Your task to perform on an android device: turn notification dots on Image 0: 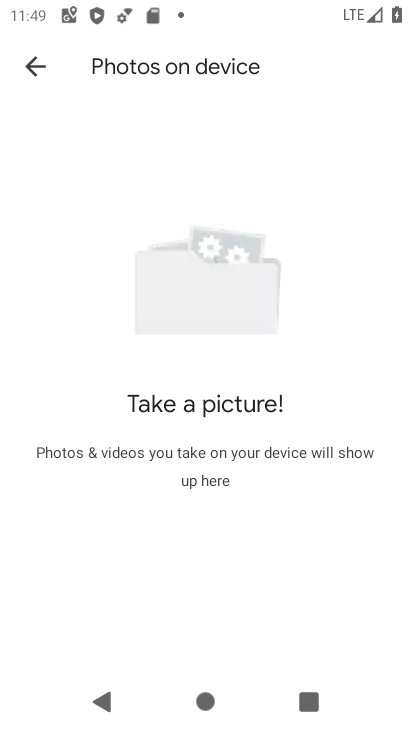
Step 0: press home button
Your task to perform on an android device: turn notification dots on Image 1: 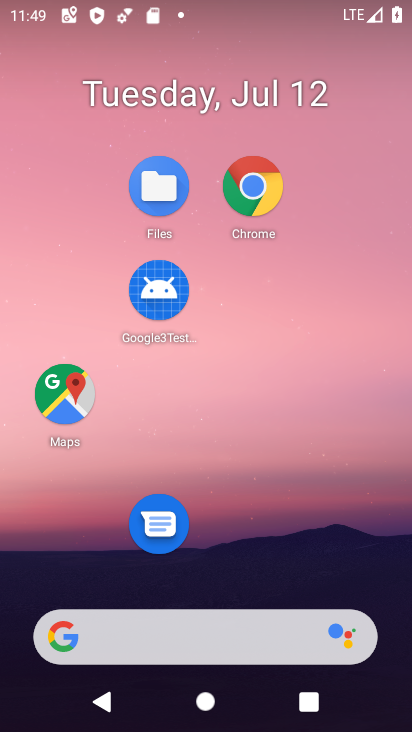
Step 1: drag from (200, 571) to (200, 116)
Your task to perform on an android device: turn notification dots on Image 2: 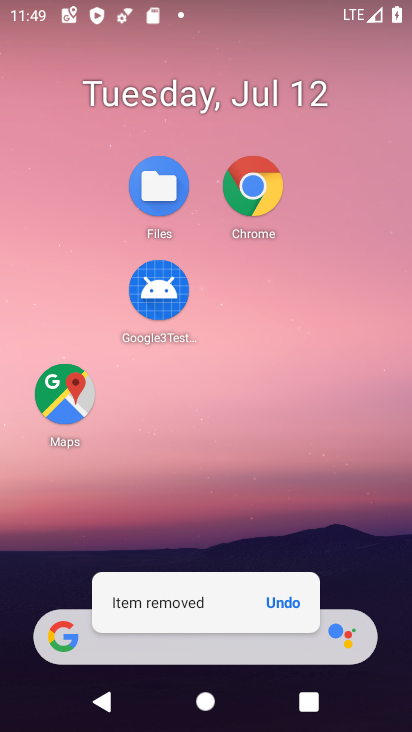
Step 2: drag from (192, 548) to (369, 65)
Your task to perform on an android device: turn notification dots on Image 3: 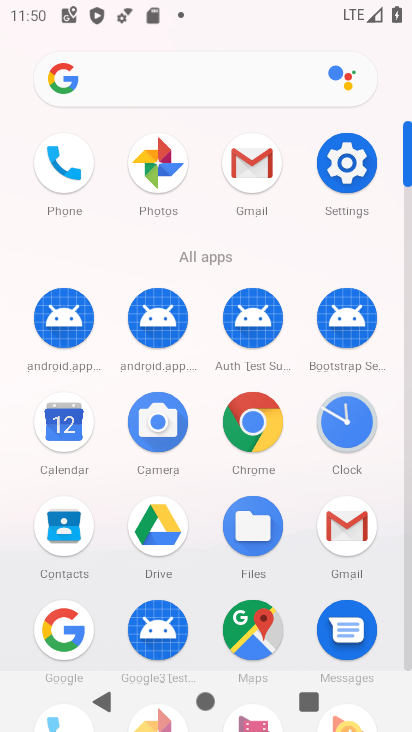
Step 3: click (344, 188)
Your task to perform on an android device: turn notification dots on Image 4: 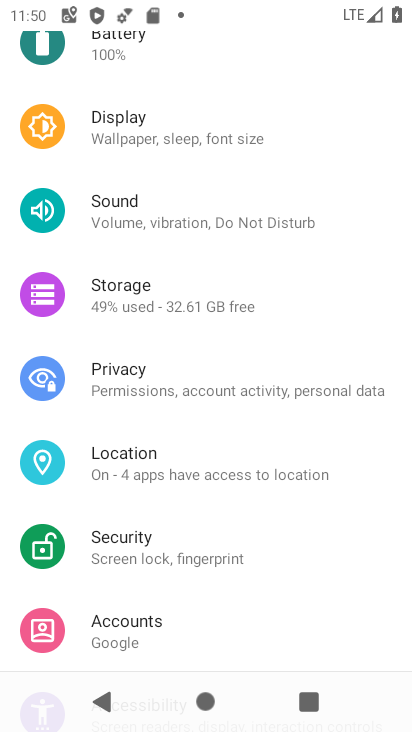
Step 4: drag from (212, 78) to (347, 550)
Your task to perform on an android device: turn notification dots on Image 5: 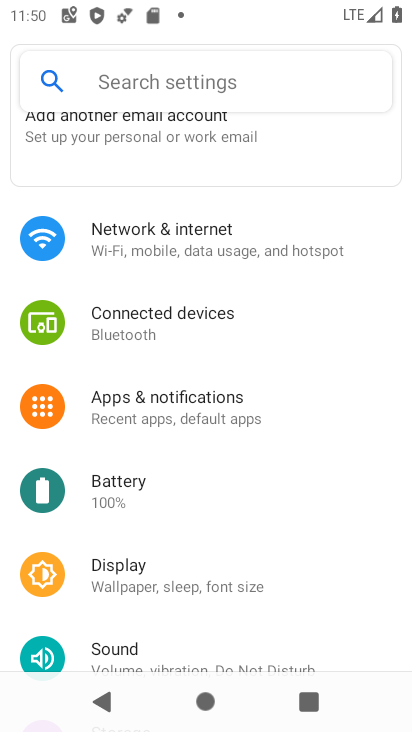
Step 5: click (183, 409)
Your task to perform on an android device: turn notification dots on Image 6: 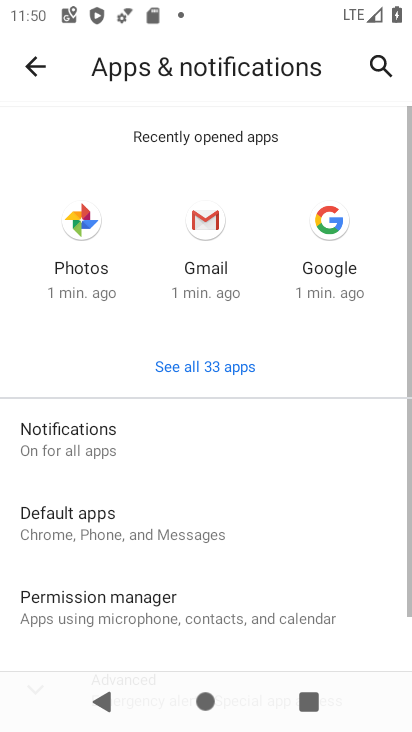
Step 6: click (129, 432)
Your task to perform on an android device: turn notification dots on Image 7: 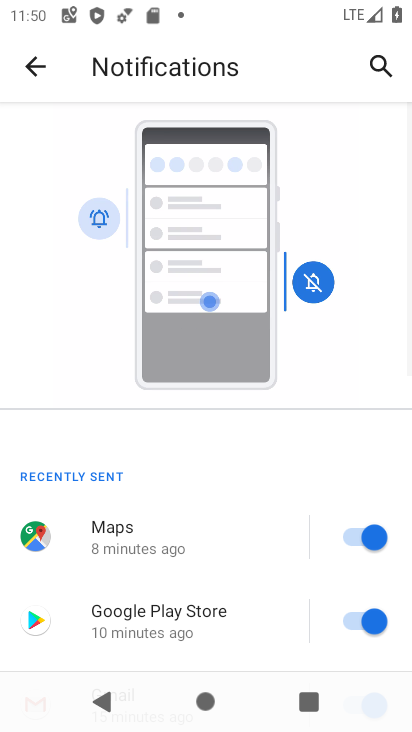
Step 7: drag from (149, 565) to (46, 82)
Your task to perform on an android device: turn notification dots on Image 8: 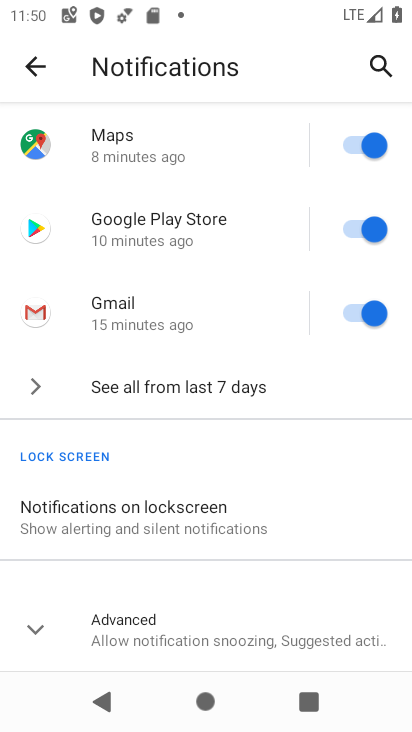
Step 8: click (165, 618)
Your task to perform on an android device: turn notification dots on Image 9: 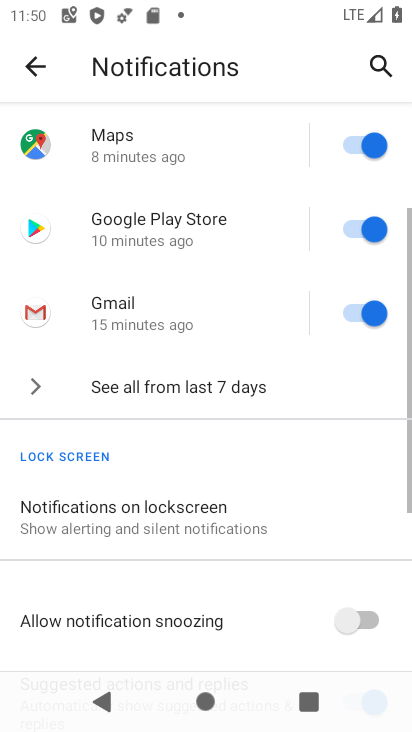
Step 9: task complete